Your task to perform on an android device: open chrome and create a bookmark for the current page Image 0: 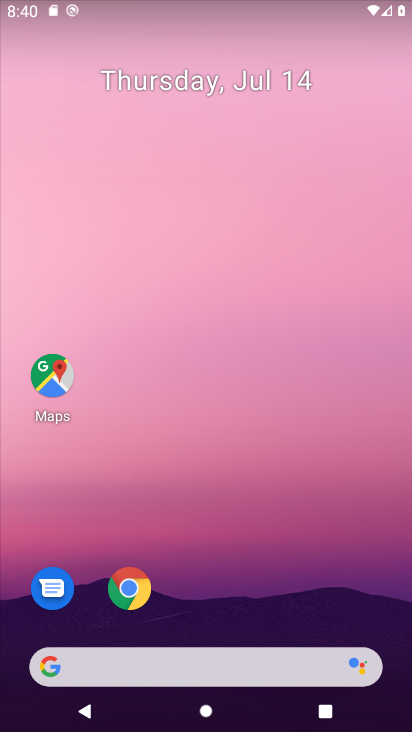
Step 0: drag from (363, 588) to (377, 170)
Your task to perform on an android device: open chrome and create a bookmark for the current page Image 1: 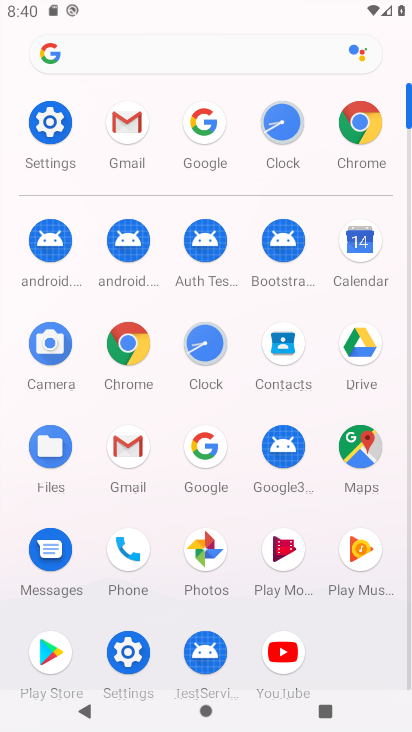
Step 1: click (365, 131)
Your task to perform on an android device: open chrome and create a bookmark for the current page Image 2: 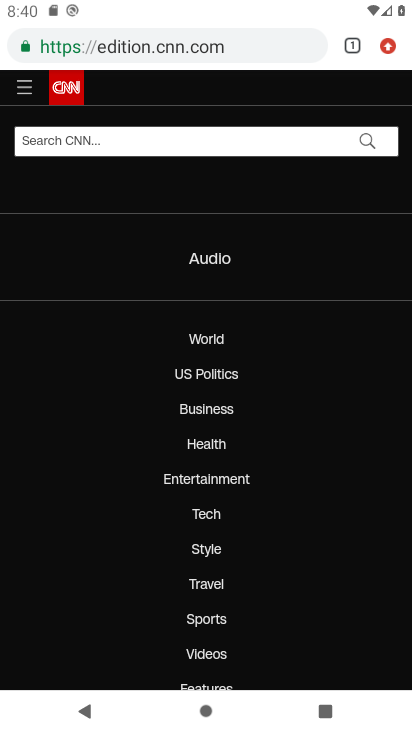
Step 2: click (389, 50)
Your task to perform on an android device: open chrome and create a bookmark for the current page Image 3: 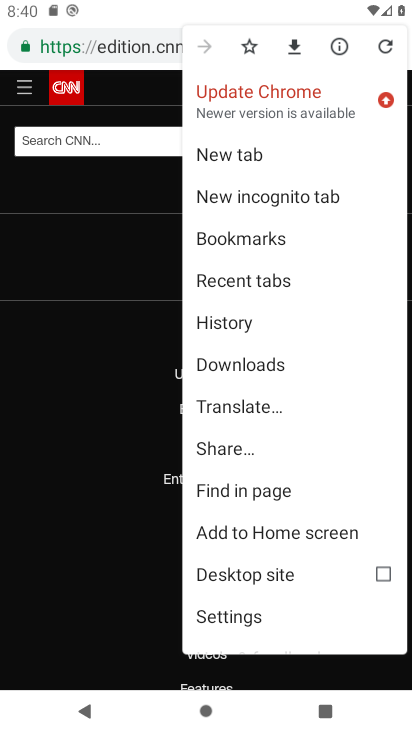
Step 3: click (251, 46)
Your task to perform on an android device: open chrome and create a bookmark for the current page Image 4: 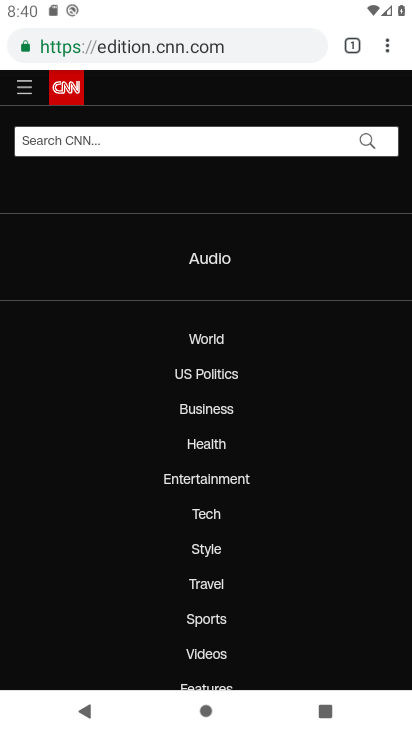
Step 4: task complete